Your task to perform on an android device: search for starred emails in the gmail app Image 0: 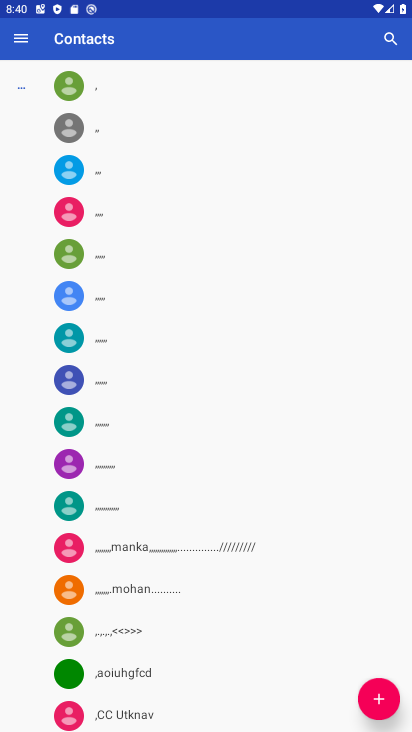
Step 0: press home button
Your task to perform on an android device: search for starred emails in the gmail app Image 1: 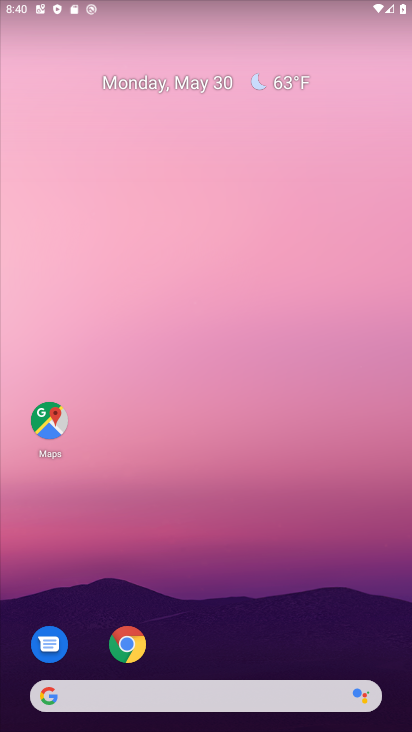
Step 1: drag from (199, 585) to (225, 29)
Your task to perform on an android device: search for starred emails in the gmail app Image 2: 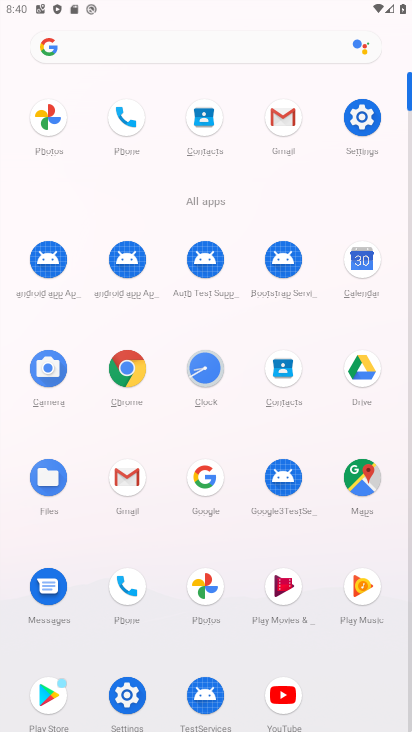
Step 2: click (281, 114)
Your task to perform on an android device: search for starred emails in the gmail app Image 3: 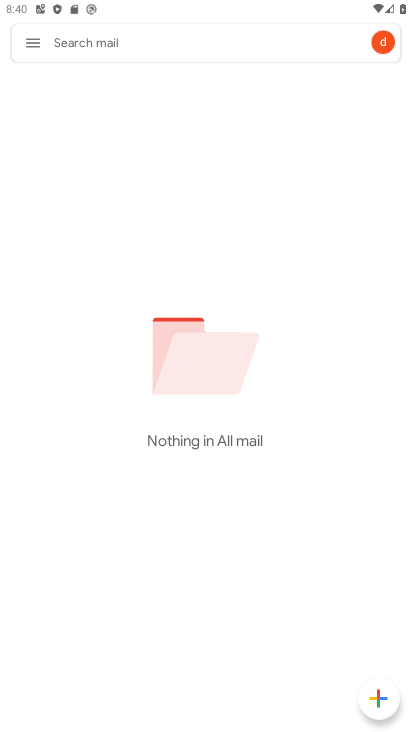
Step 3: click (30, 34)
Your task to perform on an android device: search for starred emails in the gmail app Image 4: 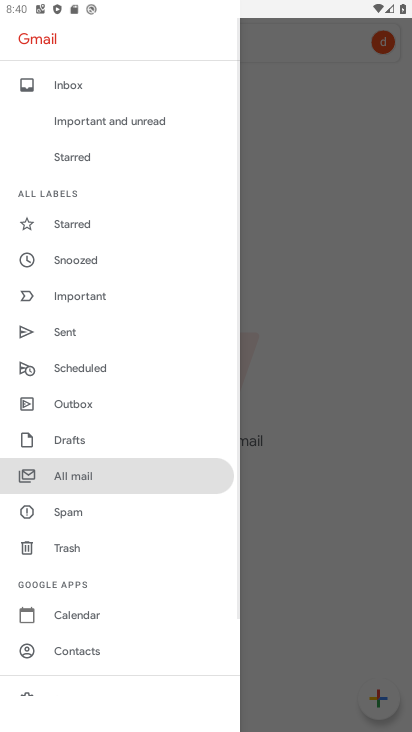
Step 4: click (82, 224)
Your task to perform on an android device: search for starred emails in the gmail app Image 5: 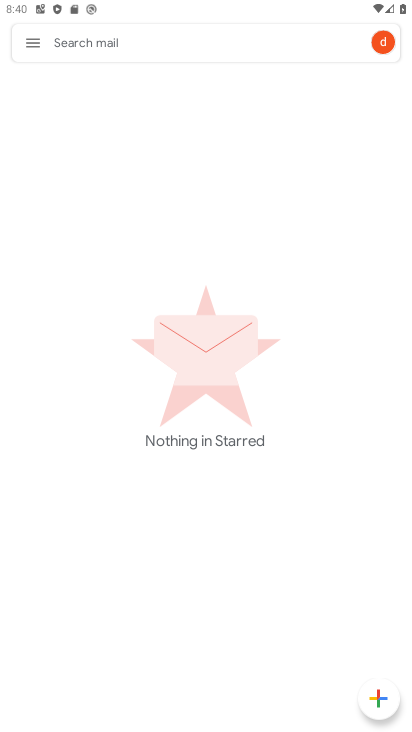
Step 5: task complete